Your task to perform on an android device: check google app version Image 0: 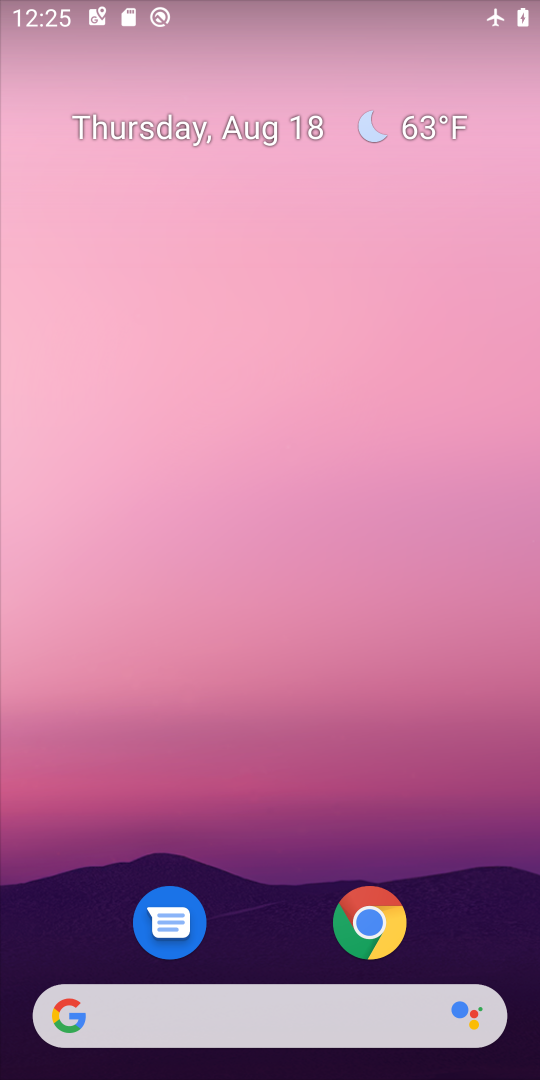
Step 0: drag from (265, 920) to (189, 154)
Your task to perform on an android device: check google app version Image 1: 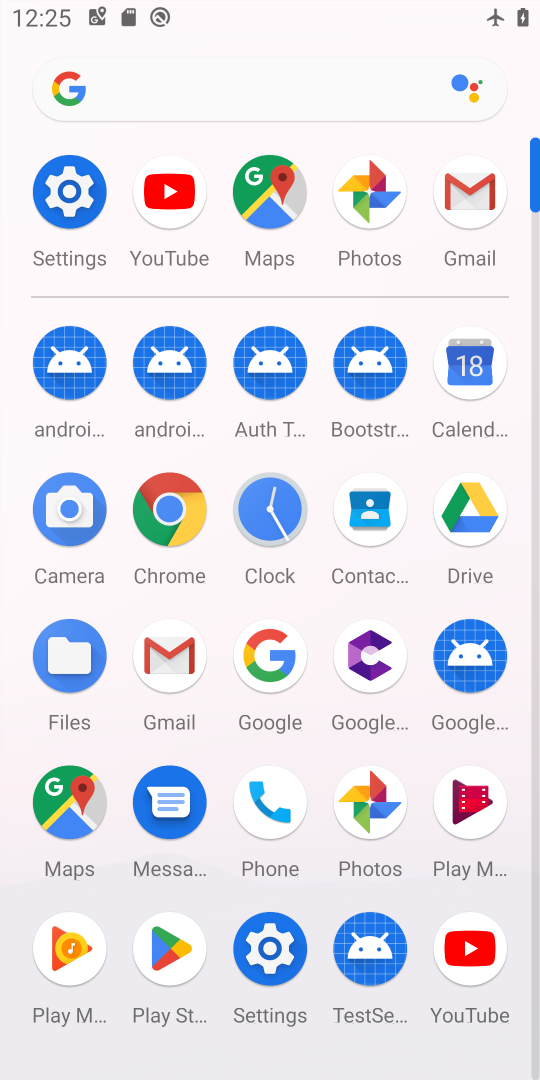
Step 1: click (270, 649)
Your task to perform on an android device: check google app version Image 2: 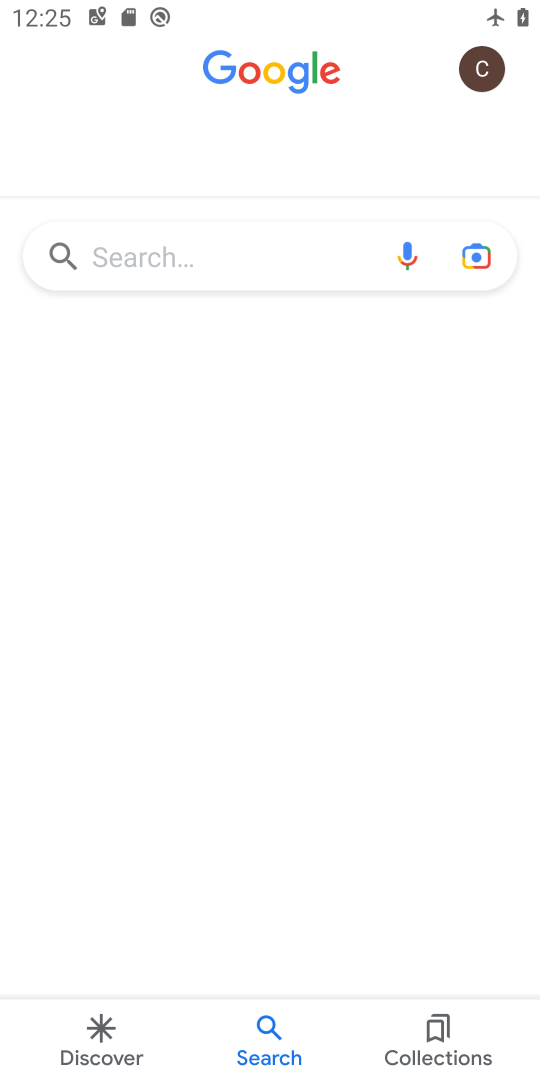
Step 2: click (481, 61)
Your task to perform on an android device: check google app version Image 3: 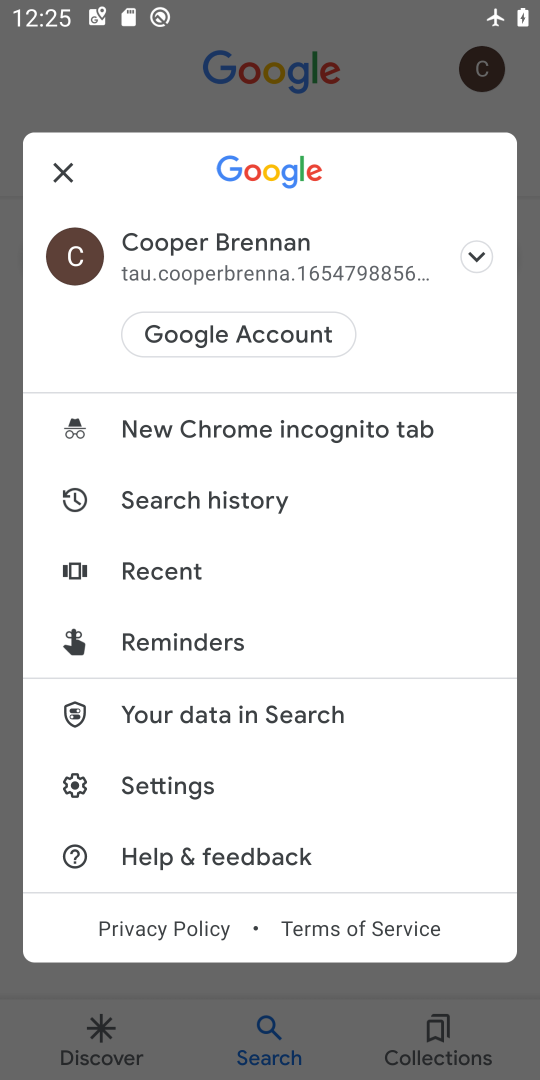
Step 3: click (157, 787)
Your task to perform on an android device: check google app version Image 4: 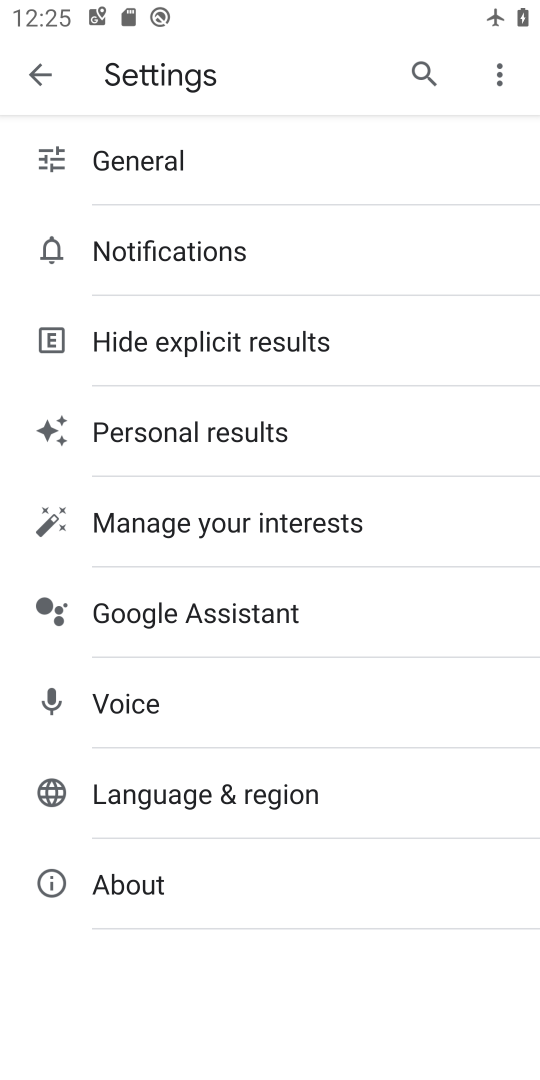
Step 4: click (148, 894)
Your task to perform on an android device: check google app version Image 5: 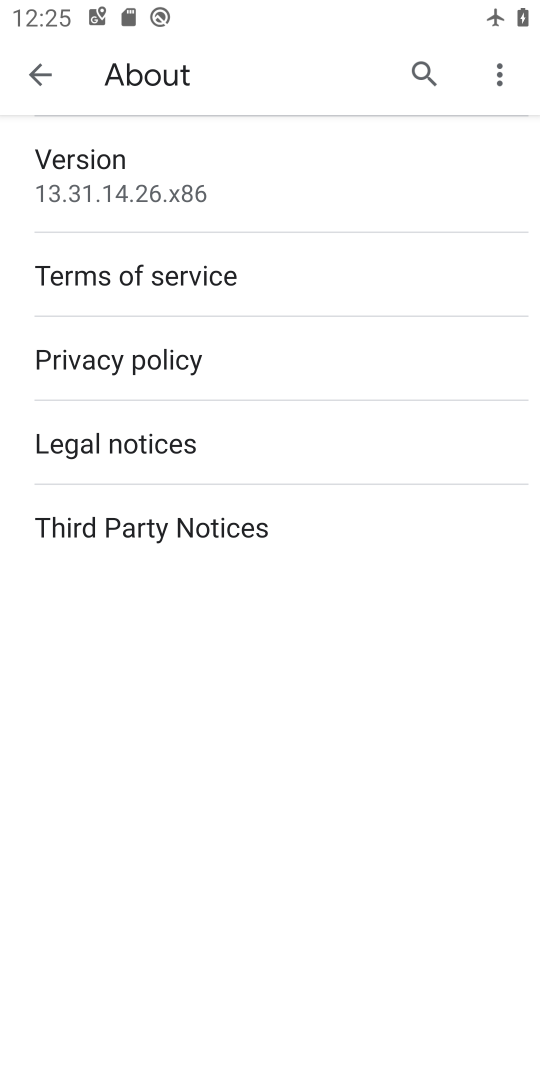
Step 5: task complete